Your task to perform on an android device: Check the news Image 0: 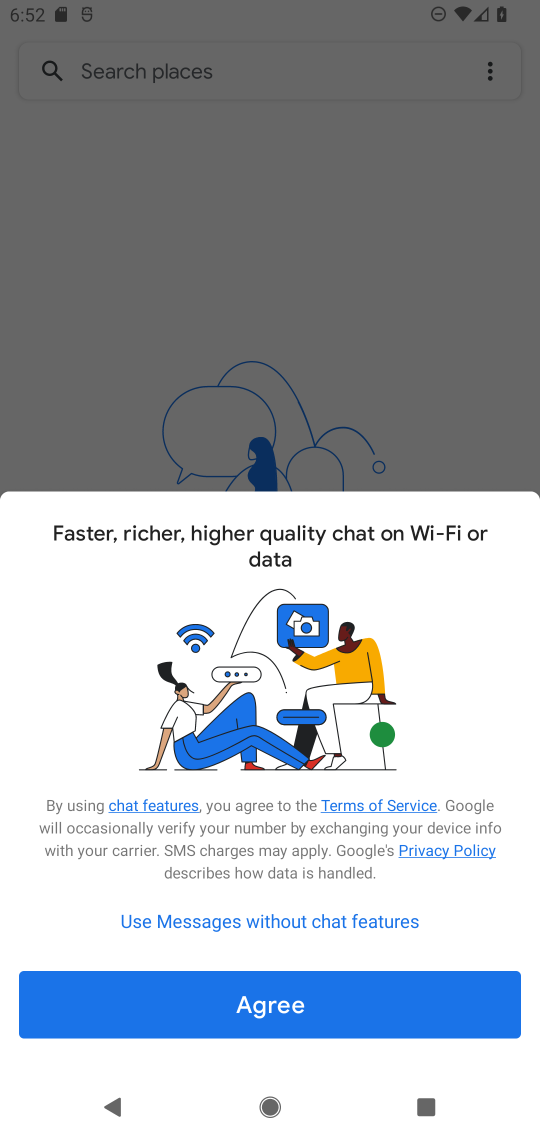
Step 0: click (385, 253)
Your task to perform on an android device: Check the news Image 1: 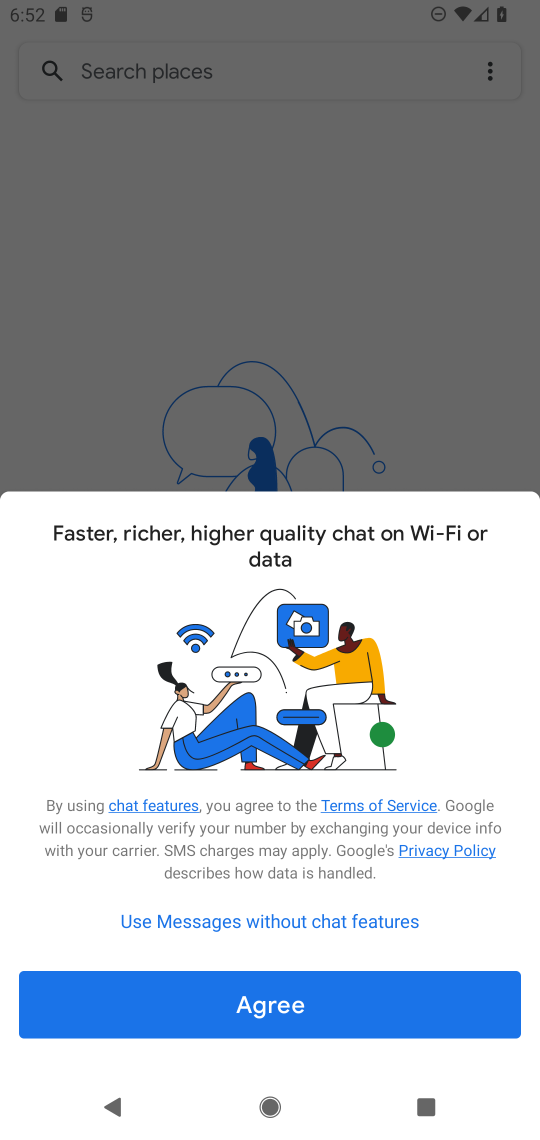
Step 1: click (448, 1011)
Your task to perform on an android device: Check the news Image 2: 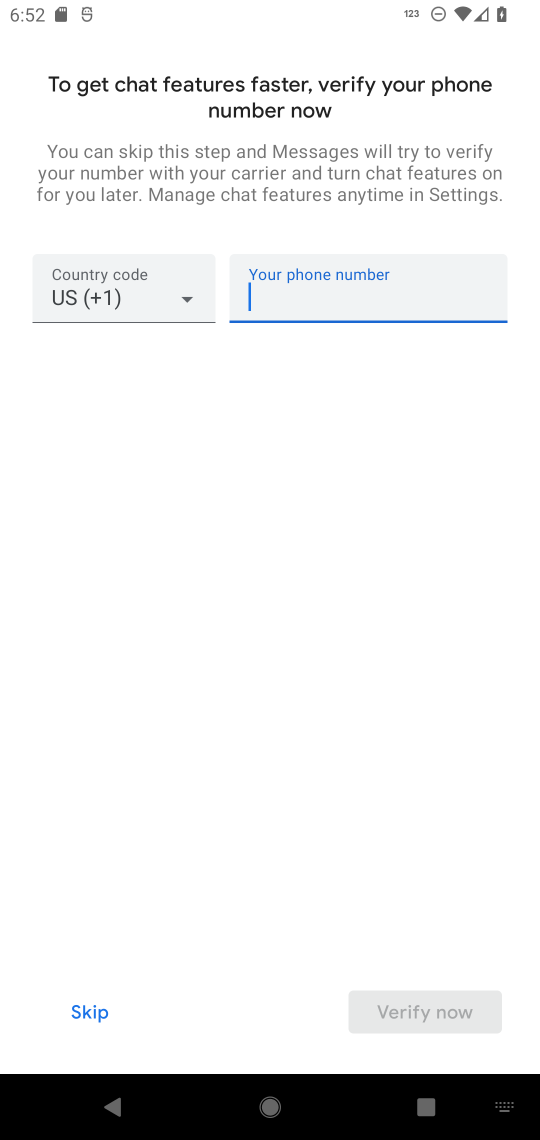
Step 2: press back button
Your task to perform on an android device: Check the news Image 3: 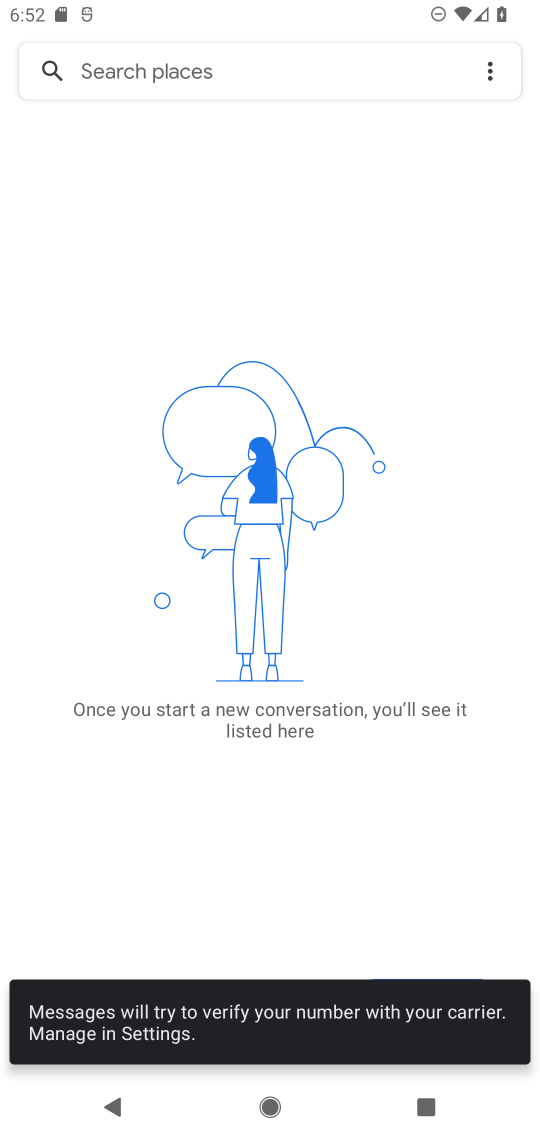
Step 3: press back button
Your task to perform on an android device: Check the news Image 4: 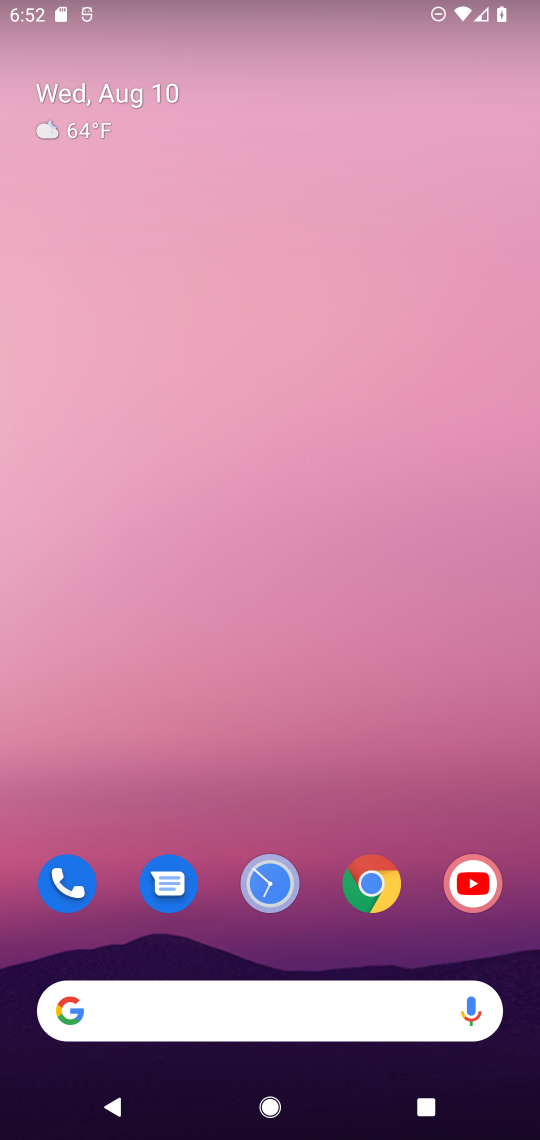
Step 4: drag from (360, 734) to (408, 94)
Your task to perform on an android device: Check the news Image 5: 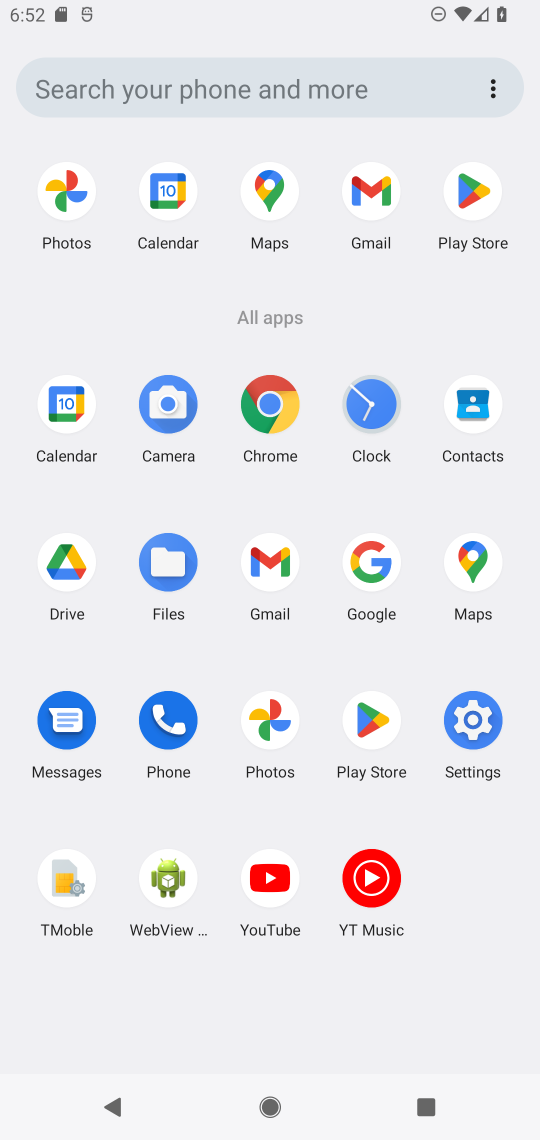
Step 5: click (270, 400)
Your task to perform on an android device: Check the news Image 6: 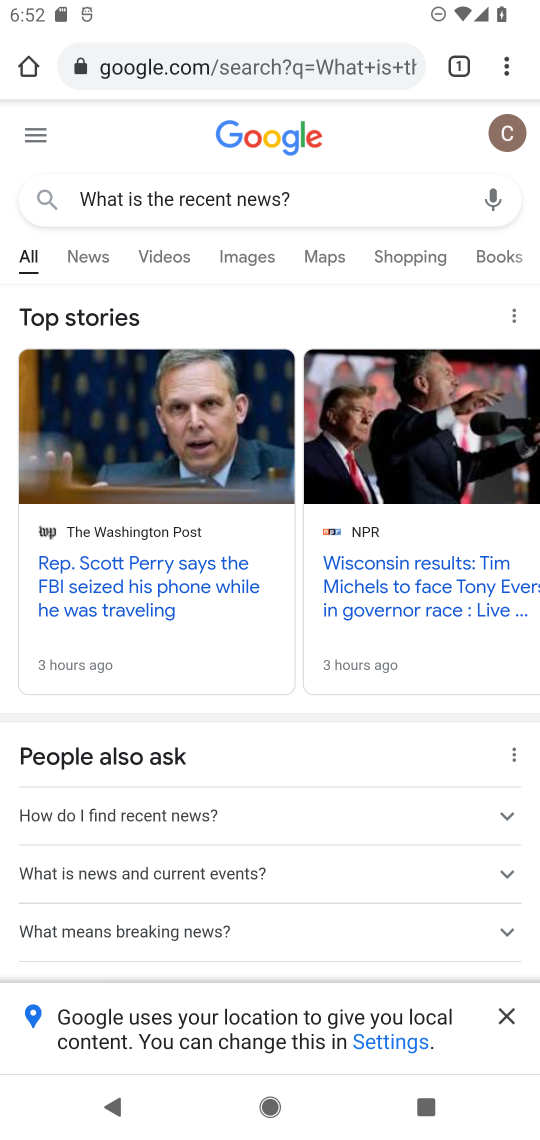
Step 6: click (211, 66)
Your task to perform on an android device: Check the news Image 7: 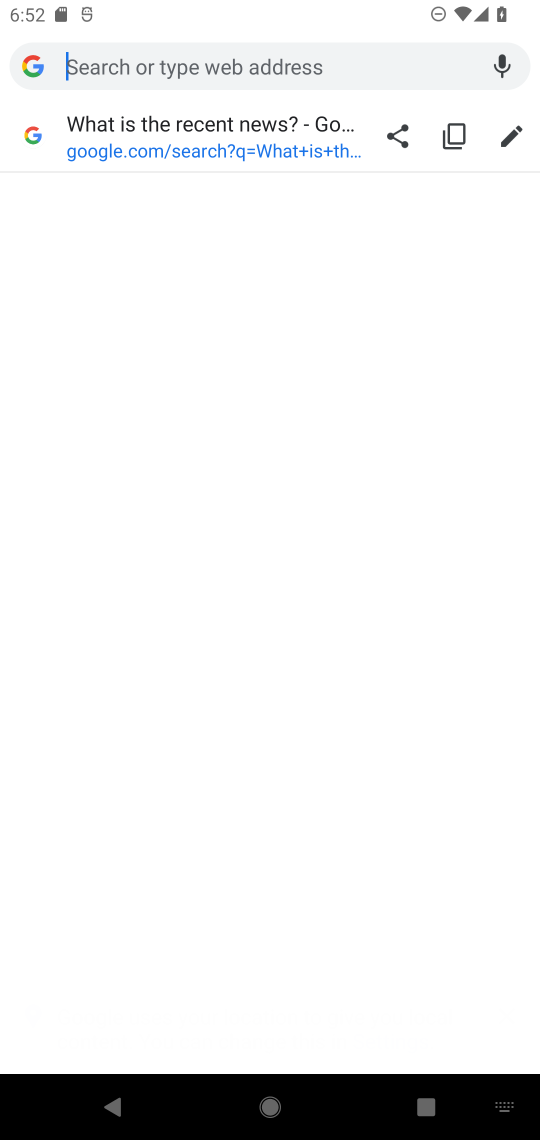
Step 7: type "Check the news"
Your task to perform on an android device: Check the news Image 8: 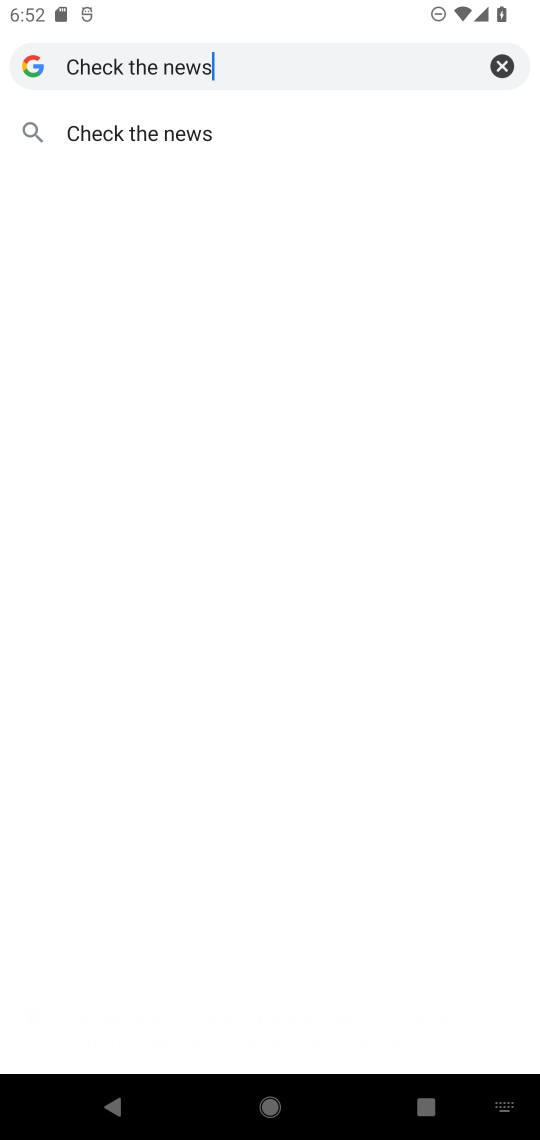
Step 8: click (167, 137)
Your task to perform on an android device: Check the news Image 9: 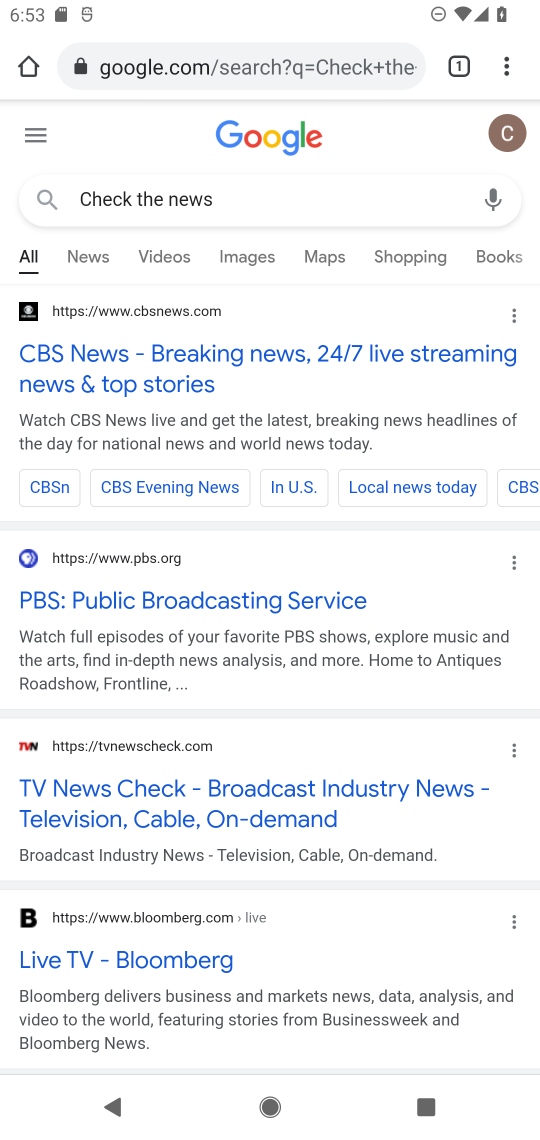
Step 9: click (87, 251)
Your task to perform on an android device: Check the news Image 10: 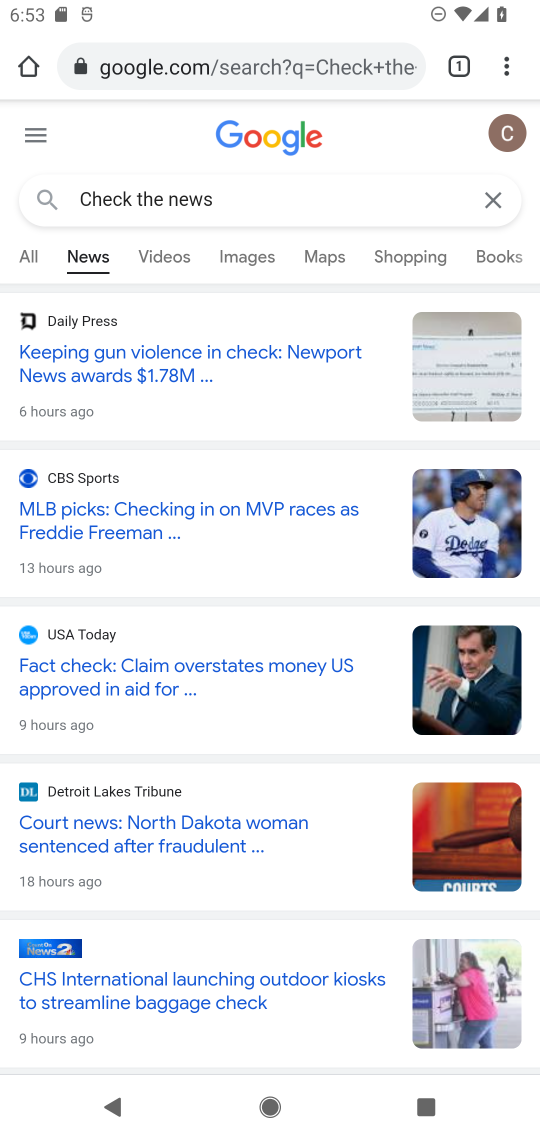
Step 10: task complete